Your task to perform on an android device: turn on location history Image 0: 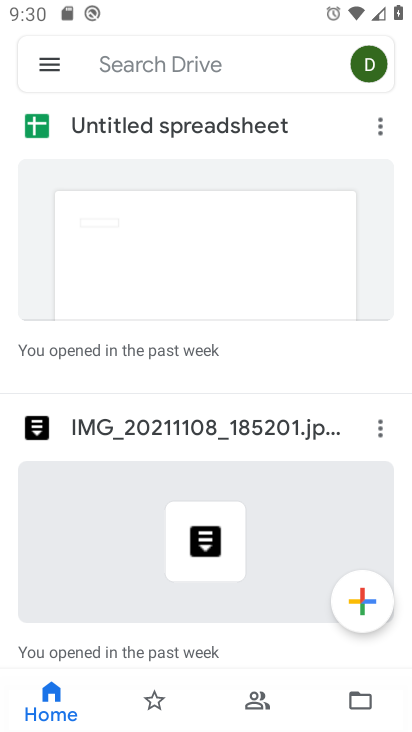
Step 0: press home button
Your task to perform on an android device: turn on location history Image 1: 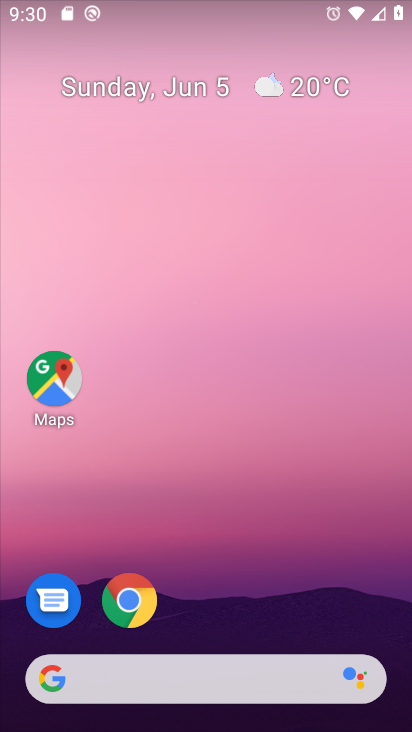
Step 1: drag from (250, 585) to (261, 0)
Your task to perform on an android device: turn on location history Image 2: 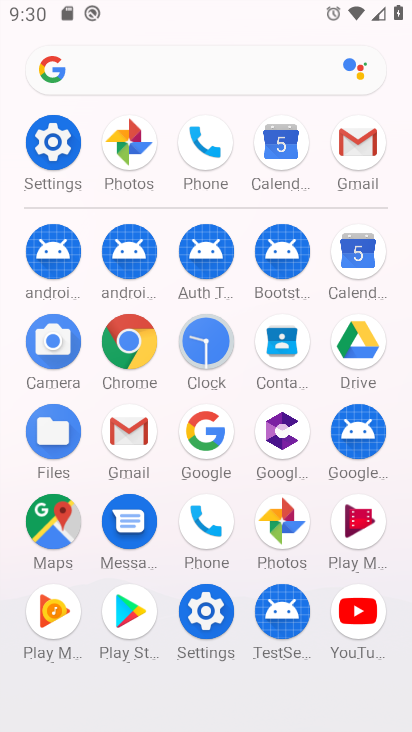
Step 2: click (61, 143)
Your task to perform on an android device: turn on location history Image 3: 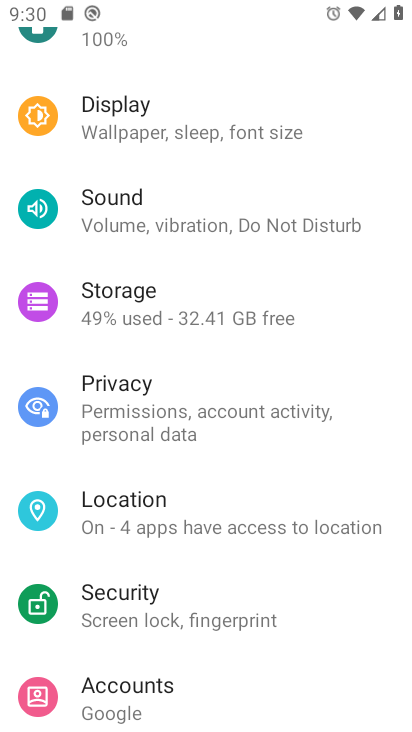
Step 3: click (282, 520)
Your task to perform on an android device: turn on location history Image 4: 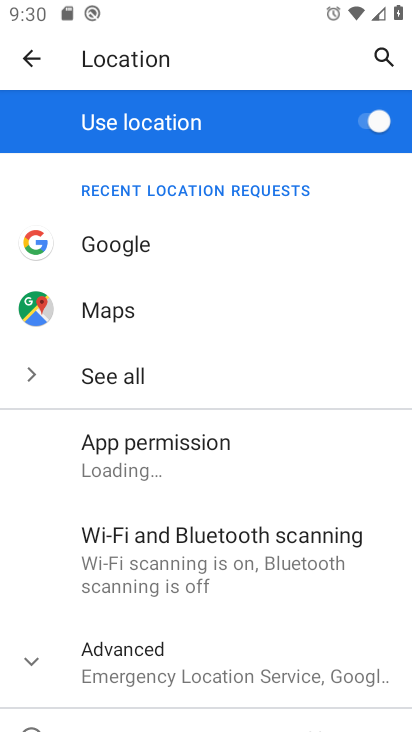
Step 4: drag from (273, 592) to (261, 298)
Your task to perform on an android device: turn on location history Image 5: 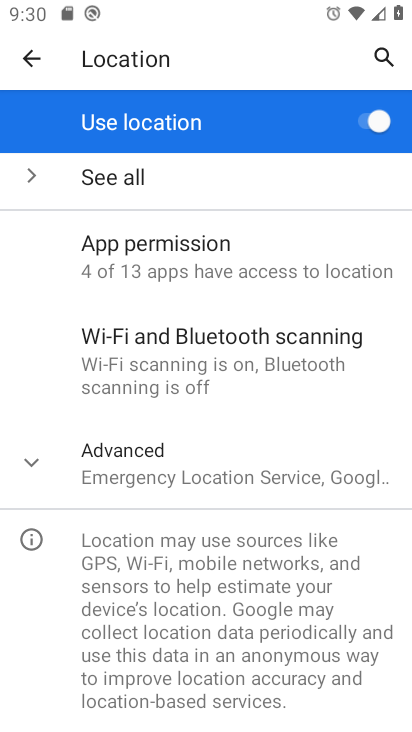
Step 5: click (34, 459)
Your task to perform on an android device: turn on location history Image 6: 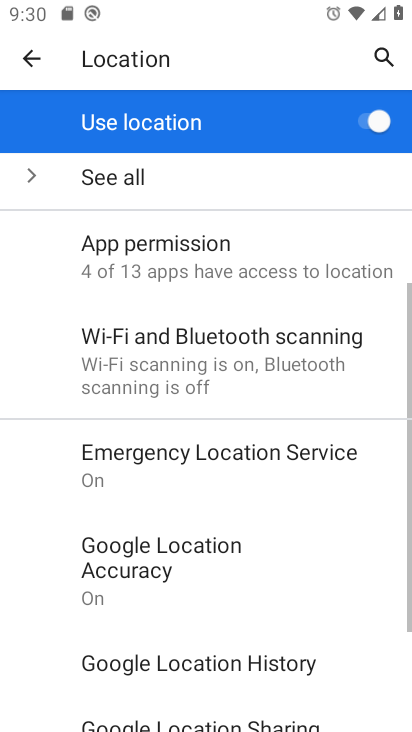
Step 6: drag from (249, 623) to (249, 422)
Your task to perform on an android device: turn on location history Image 7: 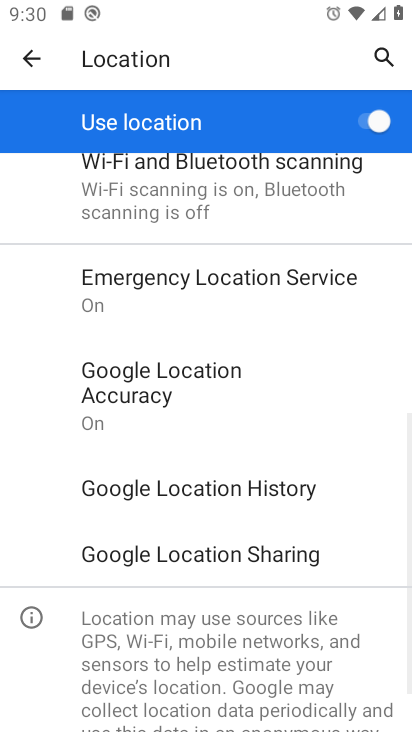
Step 7: click (250, 490)
Your task to perform on an android device: turn on location history Image 8: 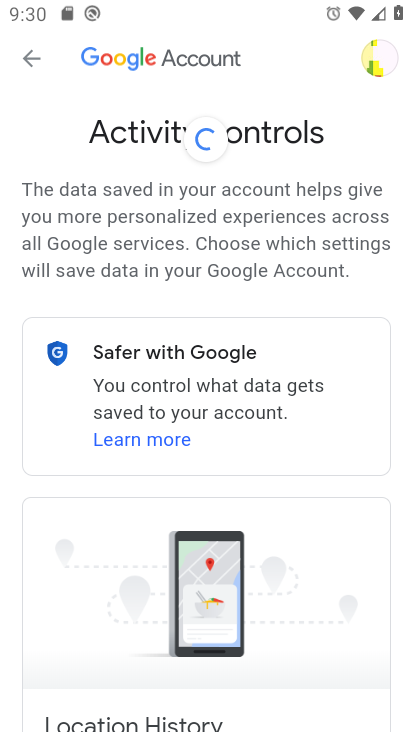
Step 8: task complete